Your task to perform on an android device: What's on my calendar tomorrow? Image 0: 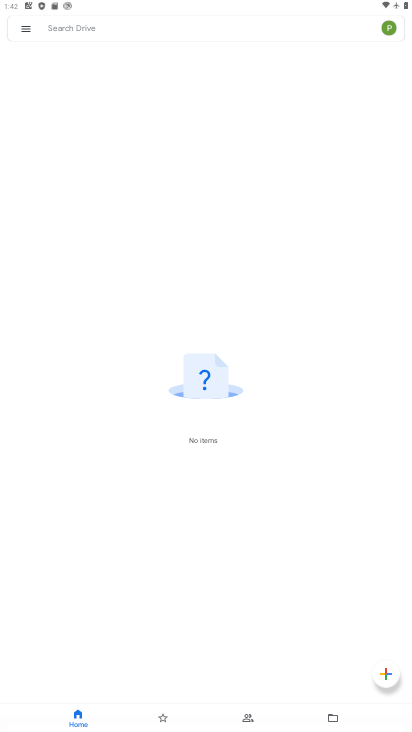
Step 0: press home button
Your task to perform on an android device: What's on my calendar tomorrow? Image 1: 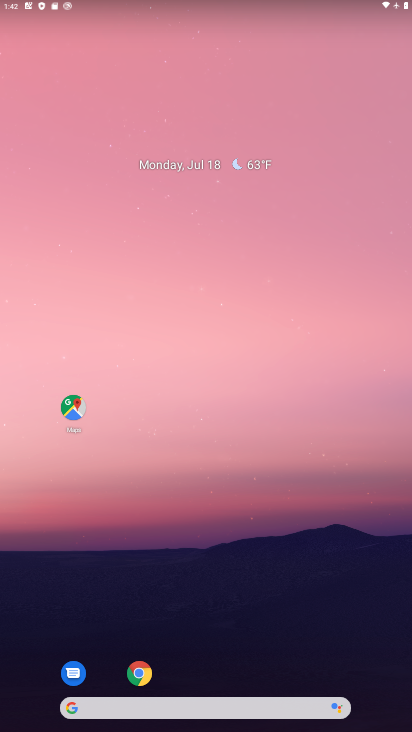
Step 1: drag from (278, 642) to (271, 81)
Your task to perform on an android device: What's on my calendar tomorrow? Image 2: 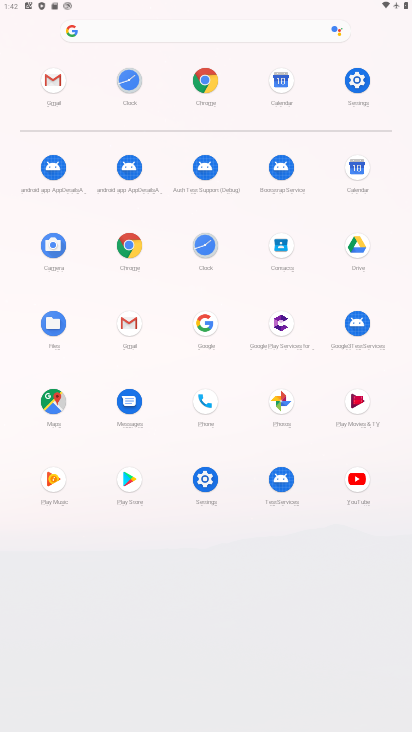
Step 2: click (356, 161)
Your task to perform on an android device: What's on my calendar tomorrow? Image 3: 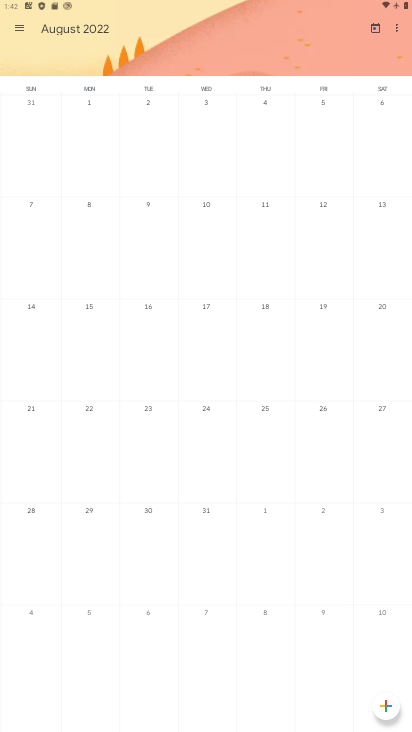
Step 3: drag from (52, 198) to (344, 251)
Your task to perform on an android device: What's on my calendar tomorrow? Image 4: 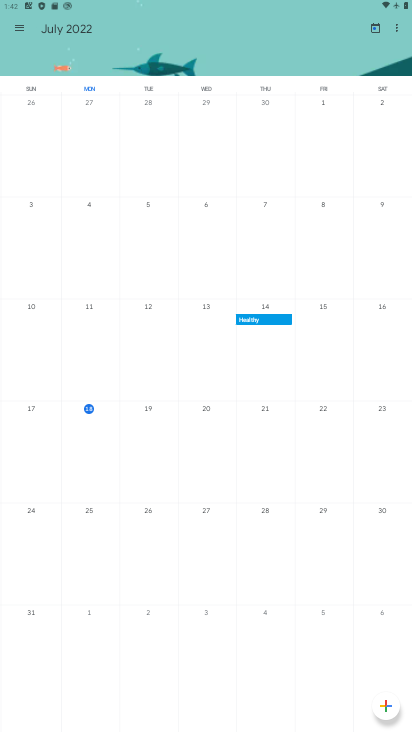
Step 4: click (134, 424)
Your task to perform on an android device: What's on my calendar tomorrow? Image 5: 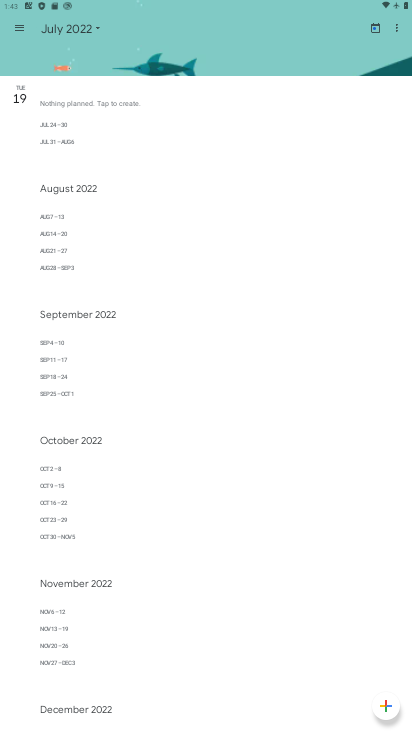
Step 5: task complete